Your task to perform on an android device: Open Google Image 0: 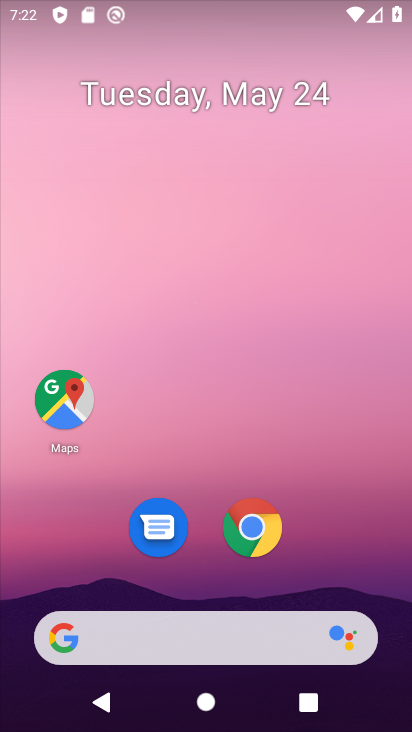
Step 0: click (261, 529)
Your task to perform on an android device: Open Google Image 1: 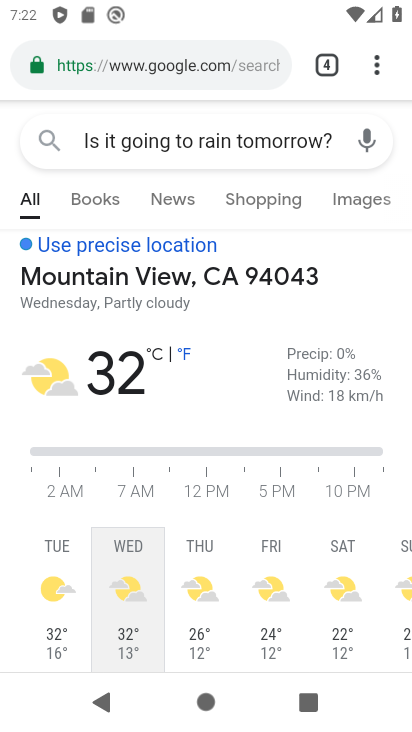
Step 1: click (363, 59)
Your task to perform on an android device: Open Google Image 2: 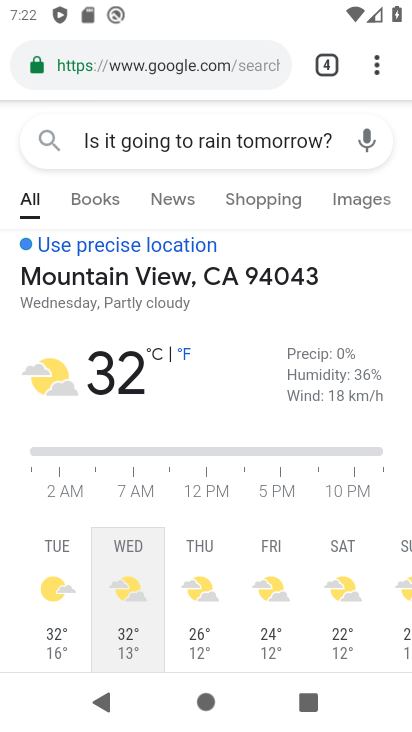
Step 2: click (371, 67)
Your task to perform on an android device: Open Google Image 3: 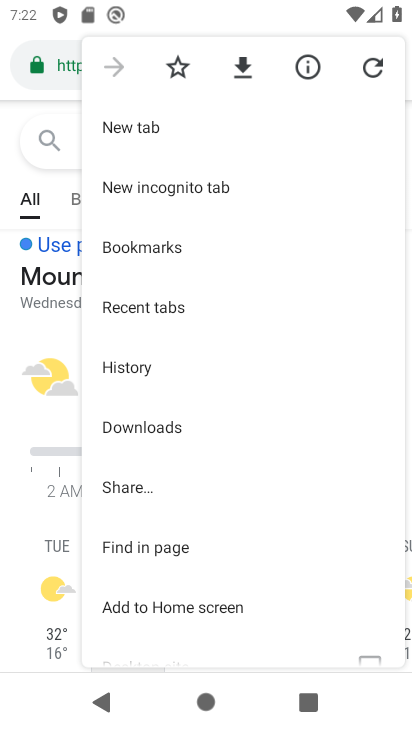
Step 3: press home button
Your task to perform on an android device: Open Google Image 4: 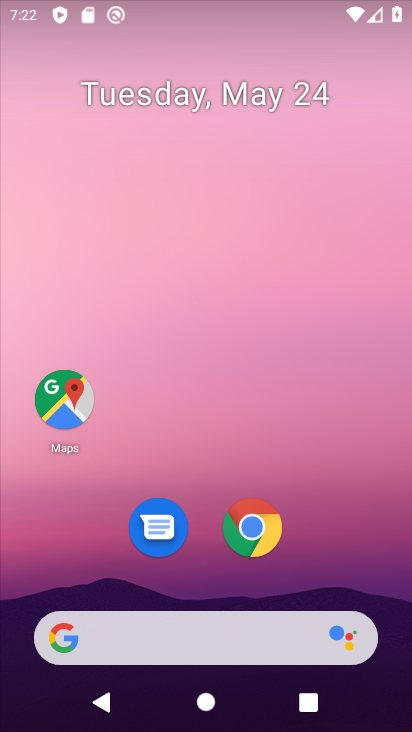
Step 4: drag from (212, 522) to (235, 185)
Your task to perform on an android device: Open Google Image 5: 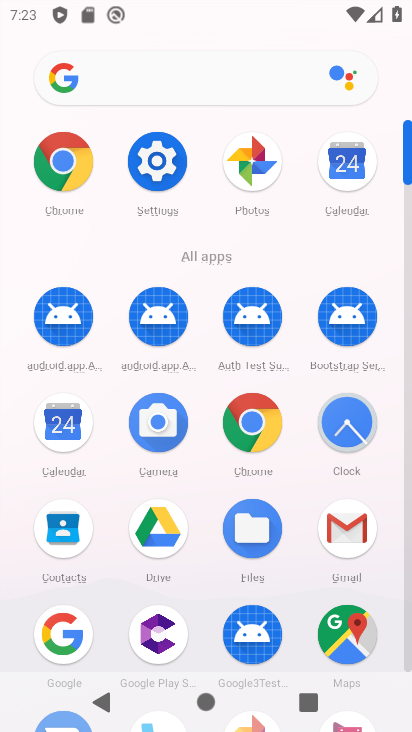
Step 5: click (46, 631)
Your task to perform on an android device: Open Google Image 6: 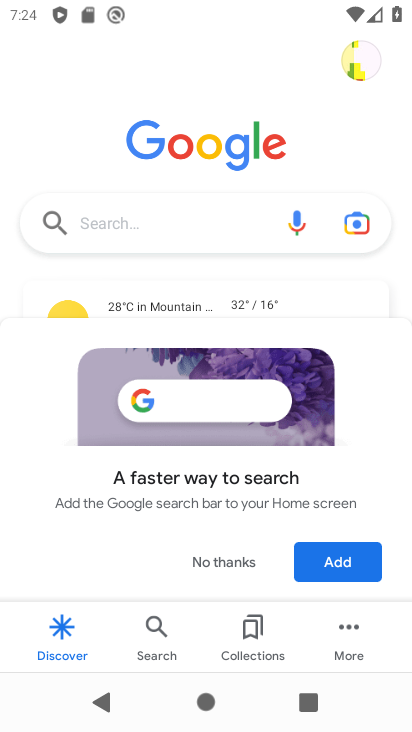
Step 6: task complete